Your task to perform on an android device: Search for "jbl charge 4" on bestbuy.com, select the first entry, and add it to the cart. Image 0: 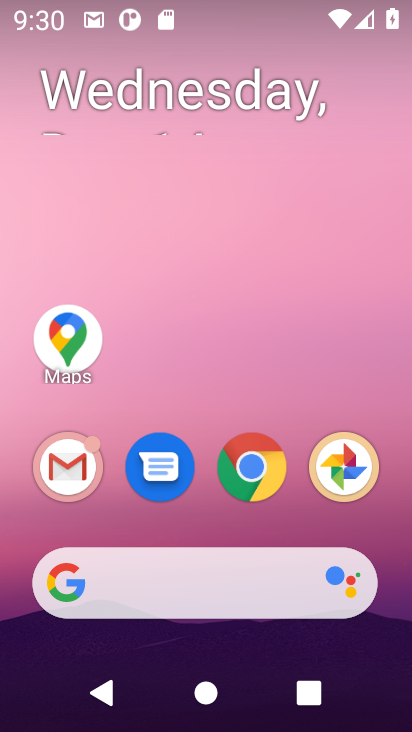
Step 0: click (217, 586)
Your task to perform on an android device: Search for "jbl charge 4" on bestbuy.com, select the first entry, and add it to the cart. Image 1: 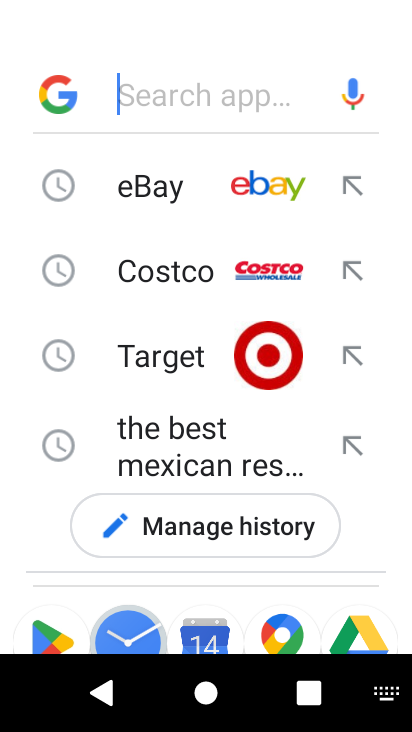
Step 1: type "bestbuy"
Your task to perform on an android device: Search for "jbl charge 4" on bestbuy.com, select the first entry, and add it to the cart. Image 2: 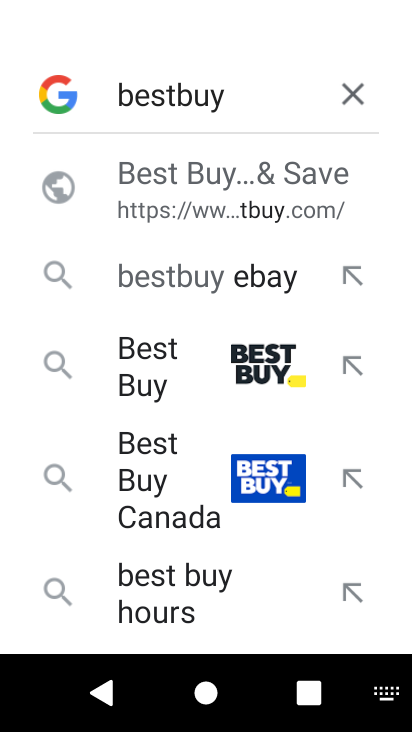
Step 2: click (261, 158)
Your task to perform on an android device: Search for "jbl charge 4" on bestbuy.com, select the first entry, and add it to the cart. Image 3: 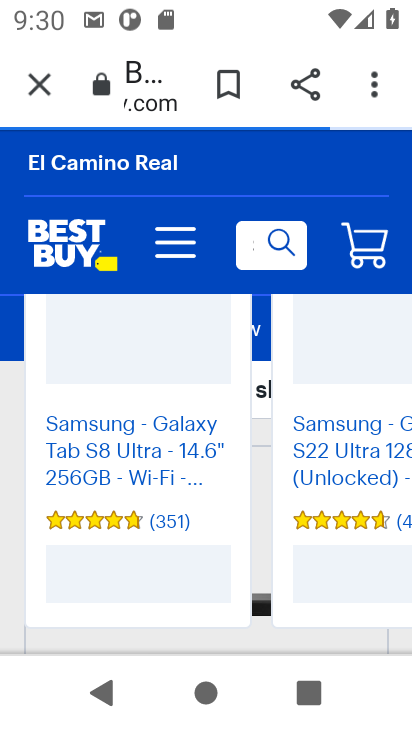
Step 3: task complete